Your task to perform on an android device: open app "Expedia: Hotels, Flights & Car" (install if not already installed) Image 0: 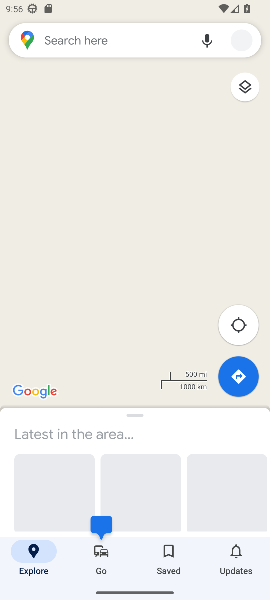
Step 0: press home button
Your task to perform on an android device: open app "Expedia: Hotels, Flights & Car" (install if not already installed) Image 1: 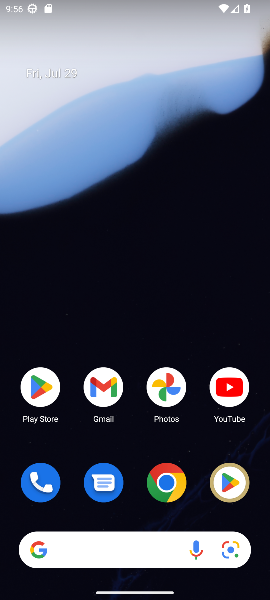
Step 1: click (231, 480)
Your task to perform on an android device: open app "Expedia: Hotels, Flights & Car" (install if not already installed) Image 2: 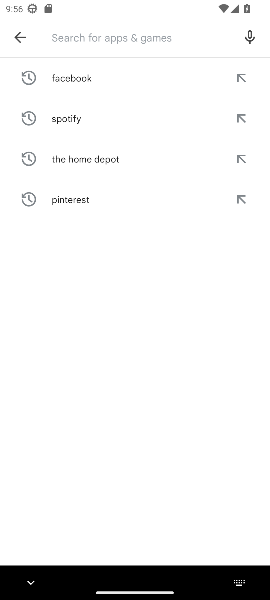
Step 2: type "Expedia: Hotels, Flights & Car"
Your task to perform on an android device: open app "Expedia: Hotels, Flights & Car" (install if not already installed) Image 3: 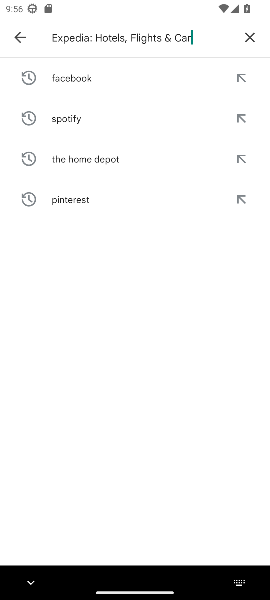
Step 3: type ""
Your task to perform on an android device: open app "Expedia: Hotels, Flights & Car" (install if not already installed) Image 4: 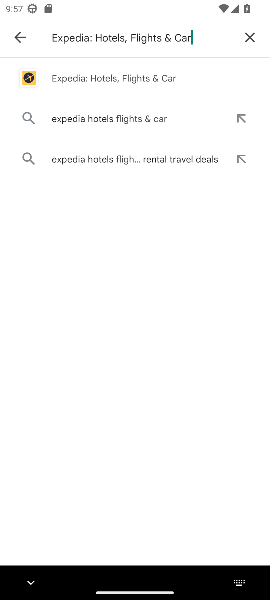
Step 4: click (138, 75)
Your task to perform on an android device: open app "Expedia: Hotels, Flights & Car" (install if not already installed) Image 5: 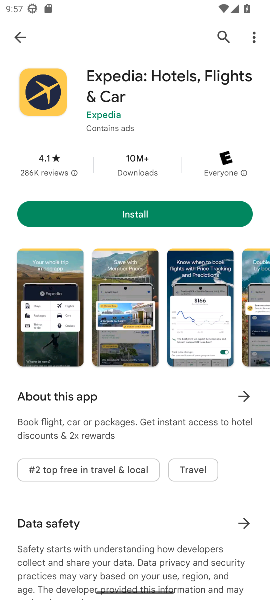
Step 5: click (137, 212)
Your task to perform on an android device: open app "Expedia: Hotels, Flights & Car" (install if not already installed) Image 6: 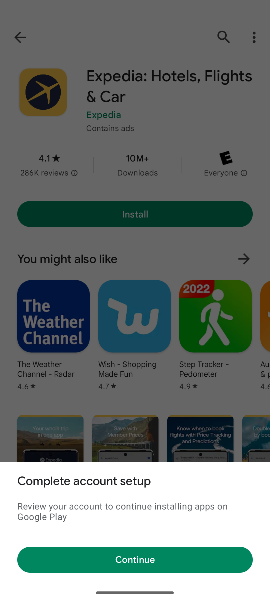
Step 6: click (136, 564)
Your task to perform on an android device: open app "Expedia: Hotels, Flights & Car" (install if not already installed) Image 7: 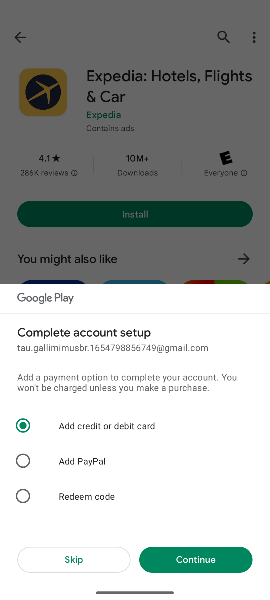
Step 7: click (70, 559)
Your task to perform on an android device: open app "Expedia: Hotels, Flights & Car" (install if not already installed) Image 8: 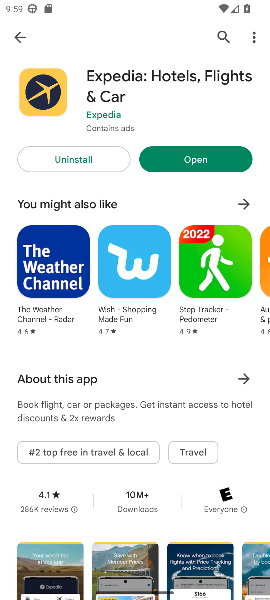
Step 8: task complete